Your task to perform on an android device: turn on showing notifications on the lock screen Image 0: 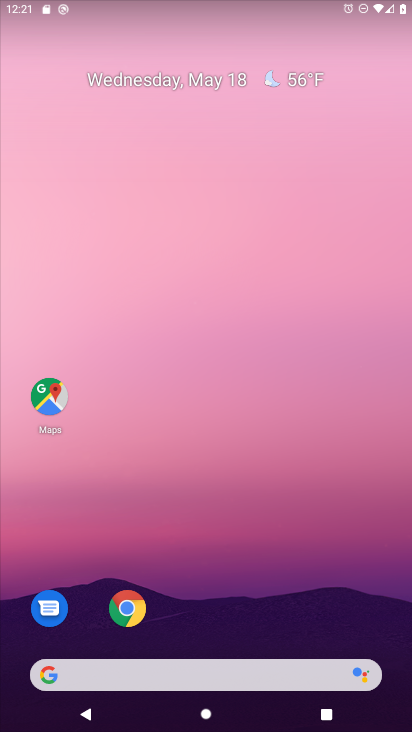
Step 0: drag from (243, 699) to (316, 123)
Your task to perform on an android device: turn on showing notifications on the lock screen Image 1: 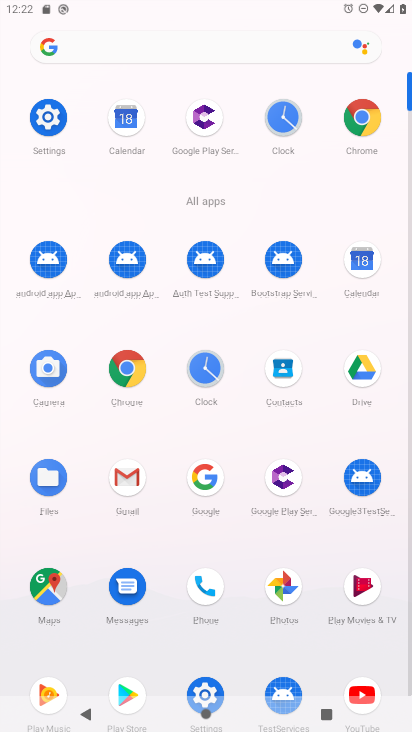
Step 1: click (46, 94)
Your task to perform on an android device: turn on showing notifications on the lock screen Image 2: 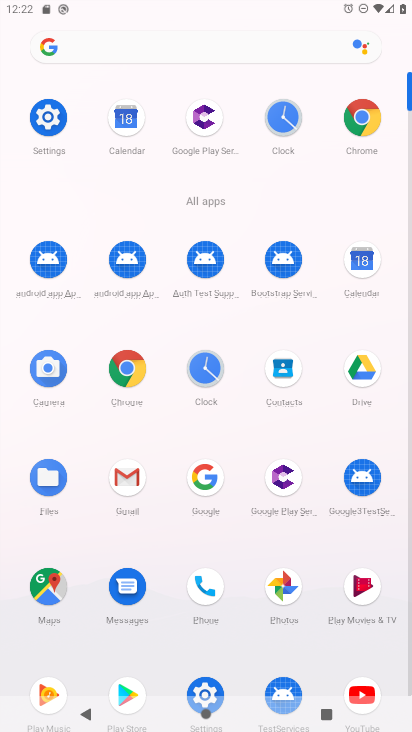
Step 2: click (55, 126)
Your task to perform on an android device: turn on showing notifications on the lock screen Image 3: 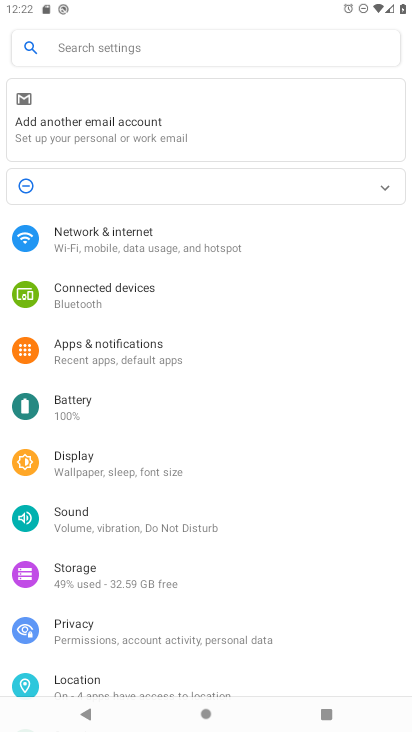
Step 3: click (116, 54)
Your task to perform on an android device: turn on showing notifications on the lock screen Image 4: 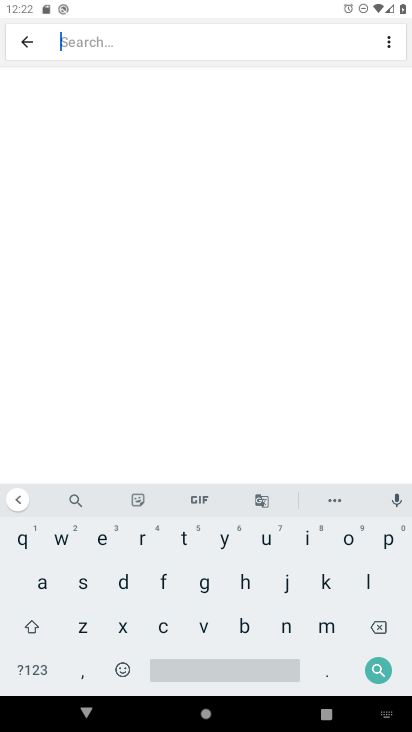
Step 4: click (289, 635)
Your task to perform on an android device: turn on showing notifications on the lock screen Image 5: 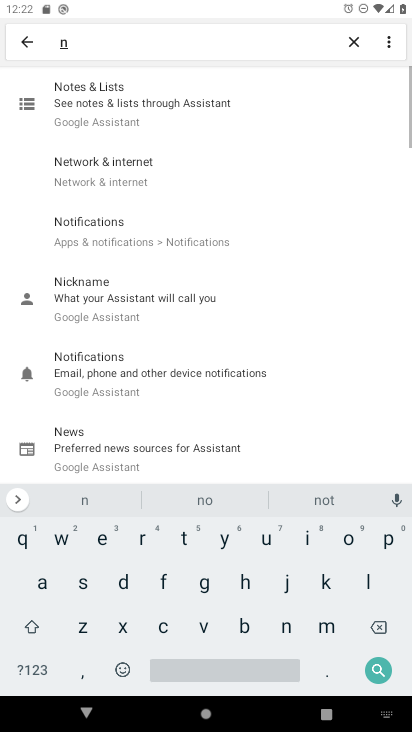
Step 5: click (349, 543)
Your task to perform on an android device: turn on showing notifications on the lock screen Image 6: 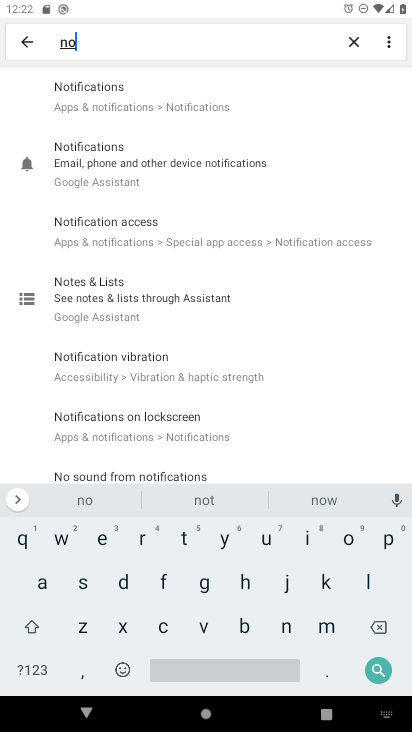
Step 6: click (167, 109)
Your task to perform on an android device: turn on showing notifications on the lock screen Image 7: 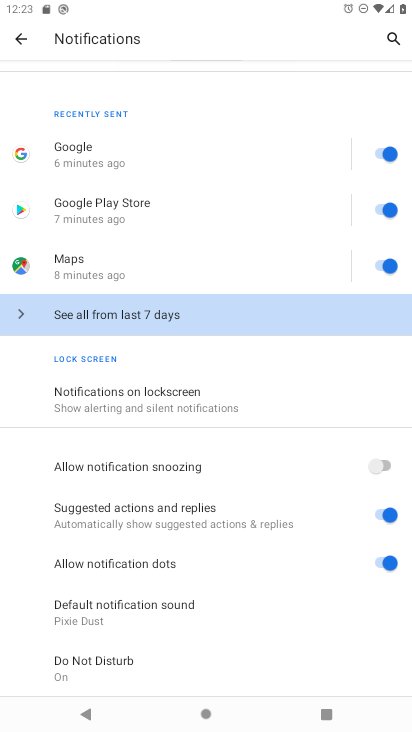
Step 7: click (115, 386)
Your task to perform on an android device: turn on showing notifications on the lock screen Image 8: 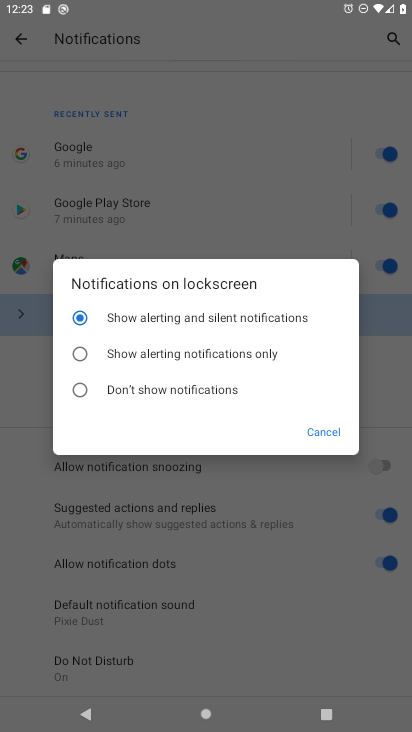
Step 8: task complete